Your task to perform on an android device: toggle translation in the chrome app Image 0: 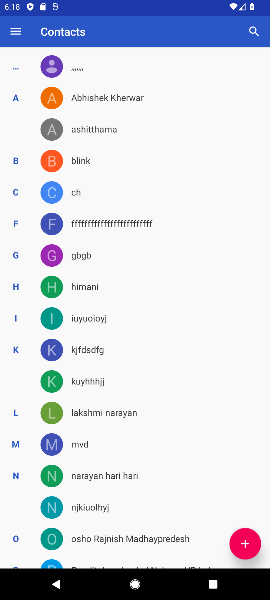
Step 0: press home button
Your task to perform on an android device: toggle translation in the chrome app Image 1: 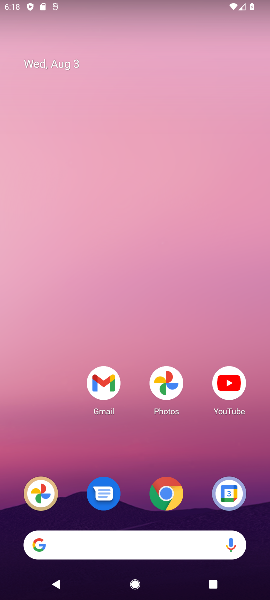
Step 1: click (165, 494)
Your task to perform on an android device: toggle translation in the chrome app Image 2: 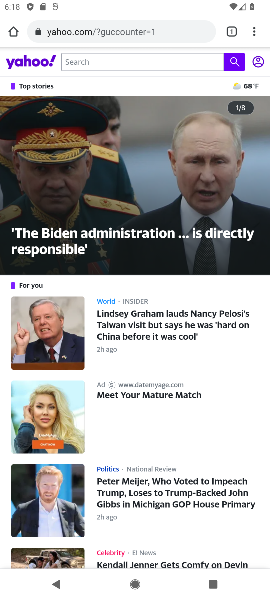
Step 2: click (254, 35)
Your task to perform on an android device: toggle translation in the chrome app Image 3: 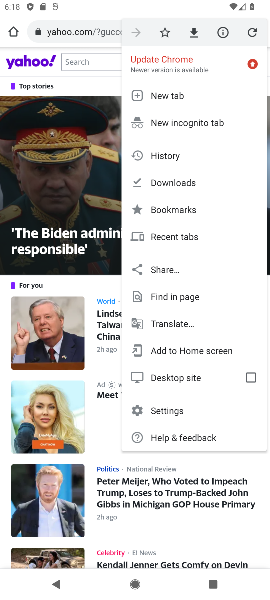
Step 3: click (166, 407)
Your task to perform on an android device: toggle translation in the chrome app Image 4: 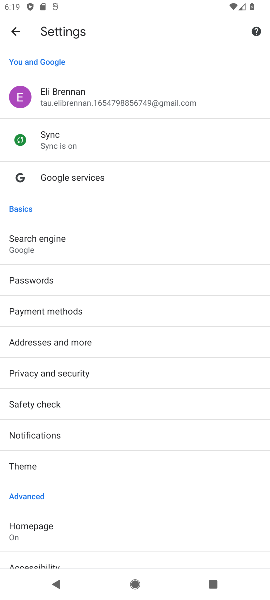
Step 4: drag from (85, 540) to (86, 321)
Your task to perform on an android device: toggle translation in the chrome app Image 5: 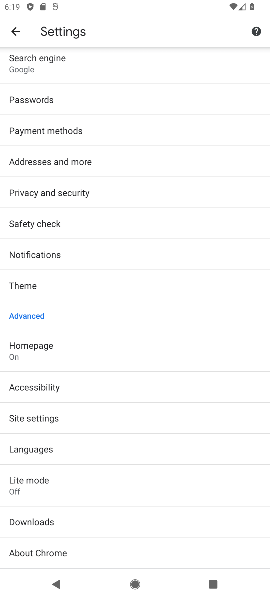
Step 5: click (42, 448)
Your task to perform on an android device: toggle translation in the chrome app Image 6: 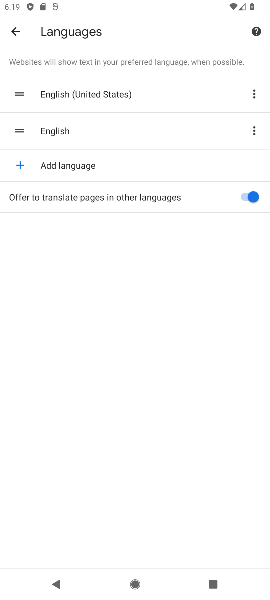
Step 6: click (248, 193)
Your task to perform on an android device: toggle translation in the chrome app Image 7: 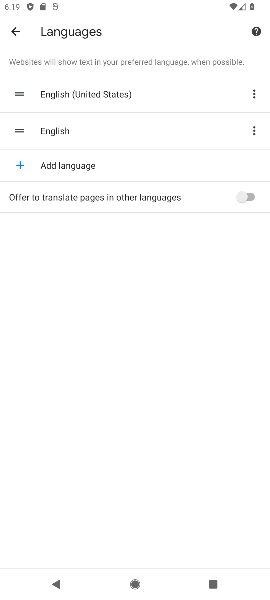
Step 7: task complete